Your task to perform on an android device: Go to calendar. Show me events next week Image 0: 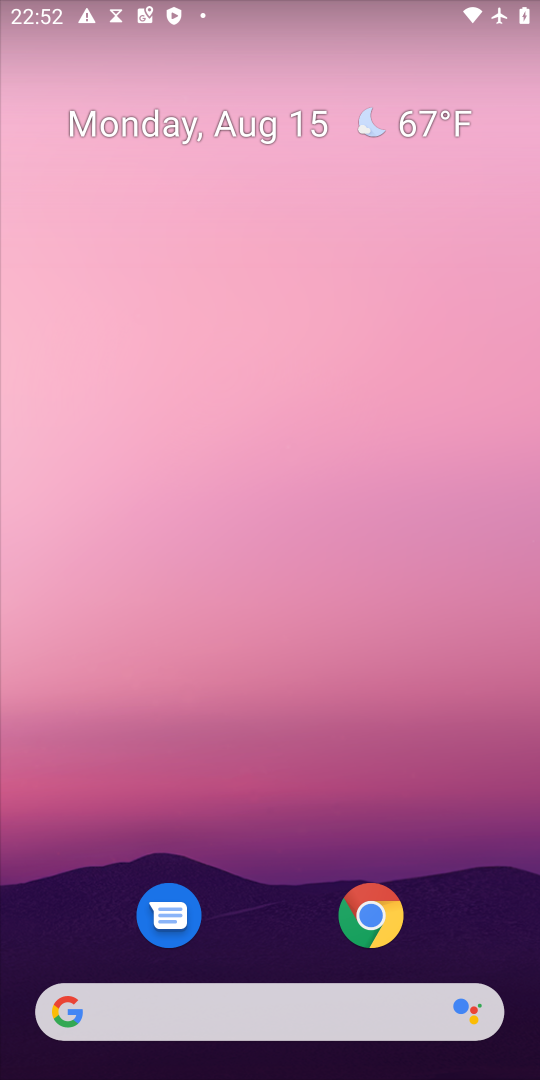
Step 0: press home button
Your task to perform on an android device: Go to calendar. Show me events next week Image 1: 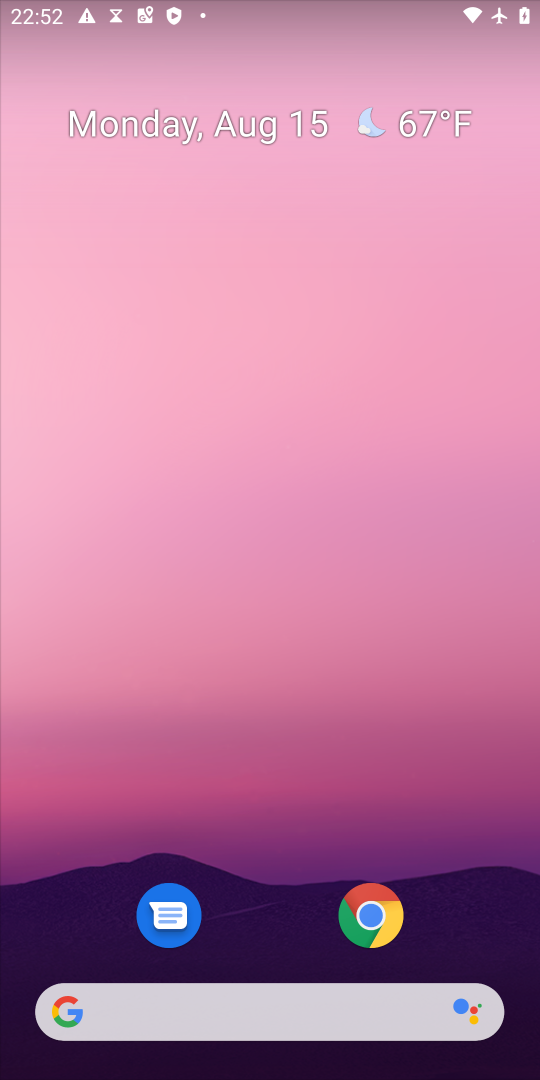
Step 1: drag from (298, 951) to (394, 348)
Your task to perform on an android device: Go to calendar. Show me events next week Image 2: 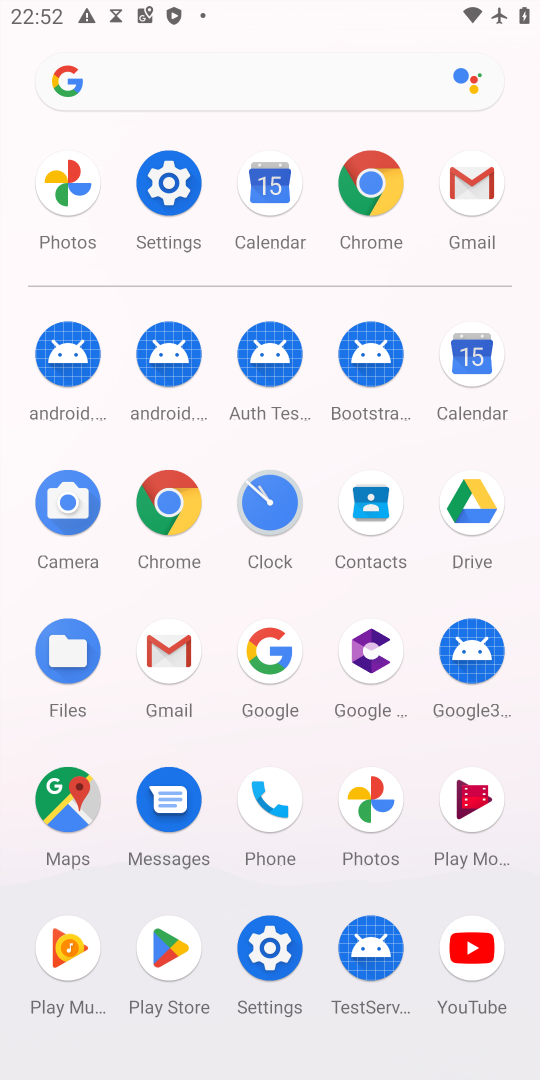
Step 2: drag from (258, 945) to (468, 361)
Your task to perform on an android device: Go to calendar. Show me events next week Image 3: 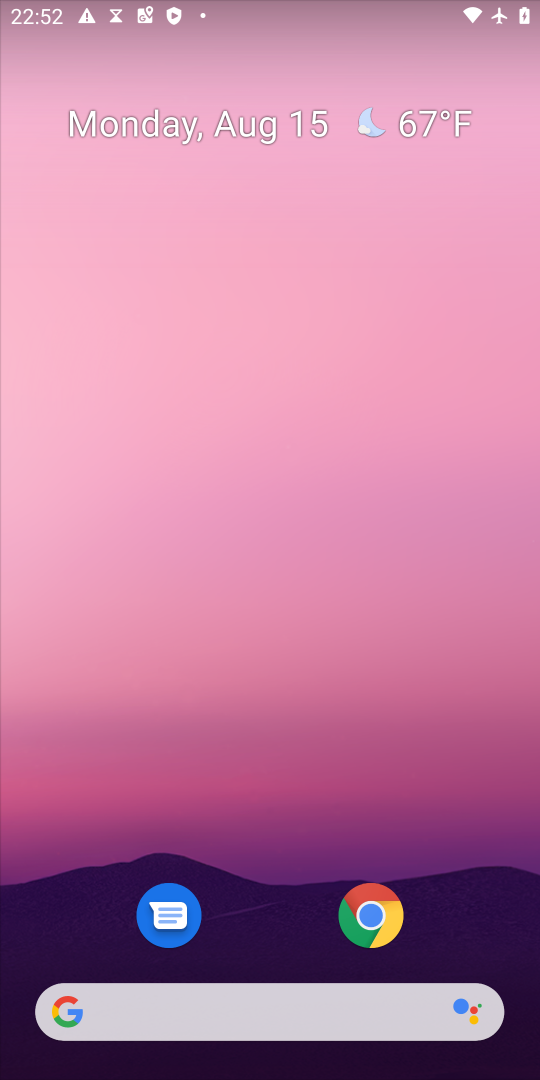
Step 3: drag from (264, 955) to (367, 156)
Your task to perform on an android device: Go to calendar. Show me events next week Image 4: 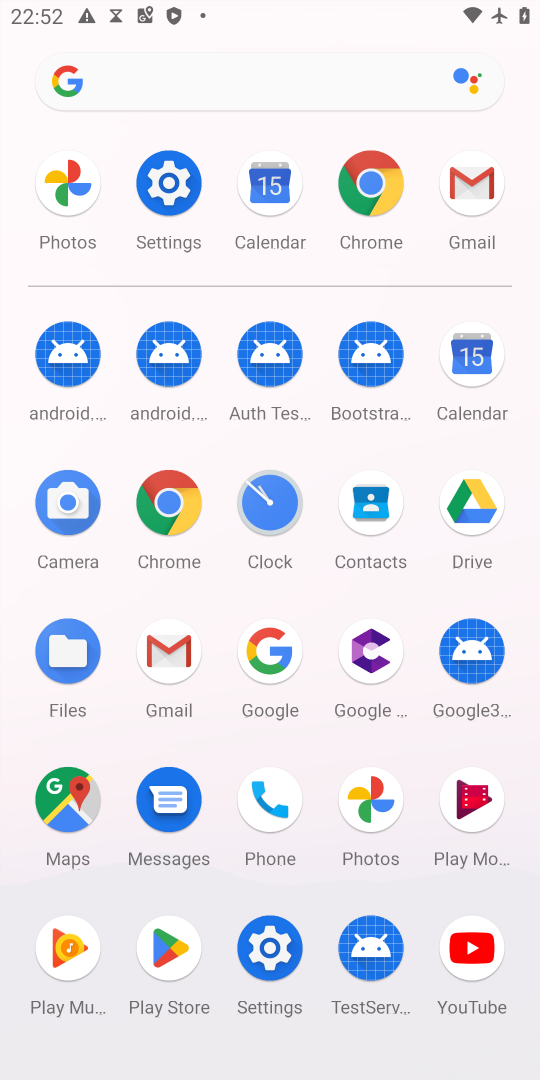
Step 4: click (480, 363)
Your task to perform on an android device: Go to calendar. Show me events next week Image 5: 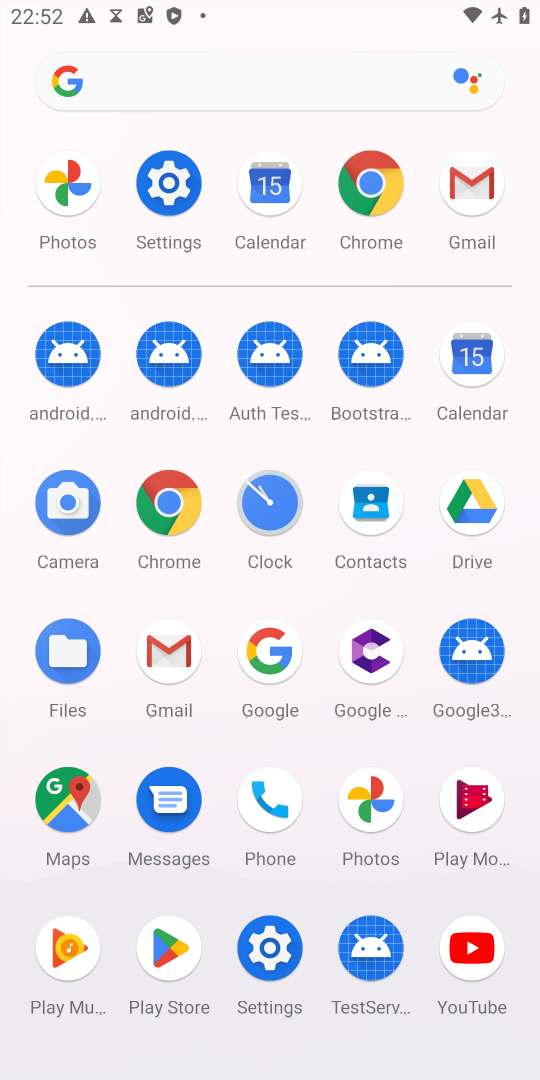
Step 5: click (476, 369)
Your task to perform on an android device: Go to calendar. Show me events next week Image 6: 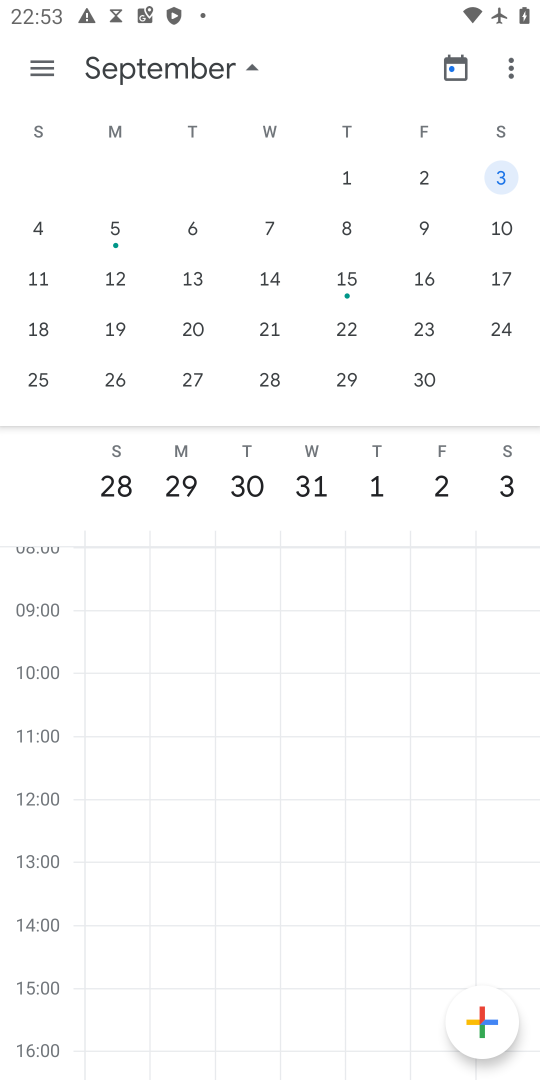
Step 6: click (47, 65)
Your task to perform on an android device: Go to calendar. Show me events next week Image 7: 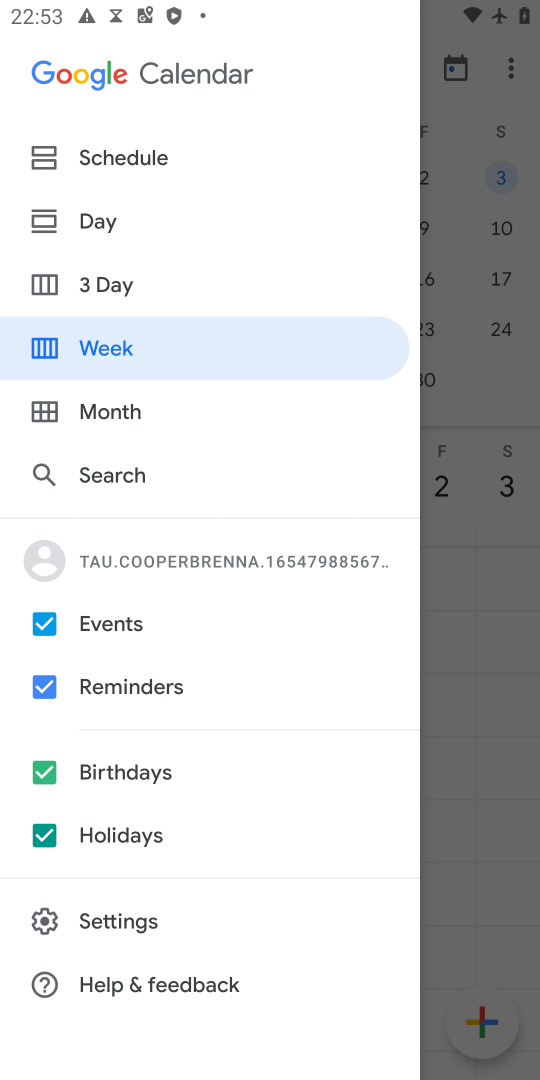
Step 7: click (129, 338)
Your task to perform on an android device: Go to calendar. Show me events next week Image 8: 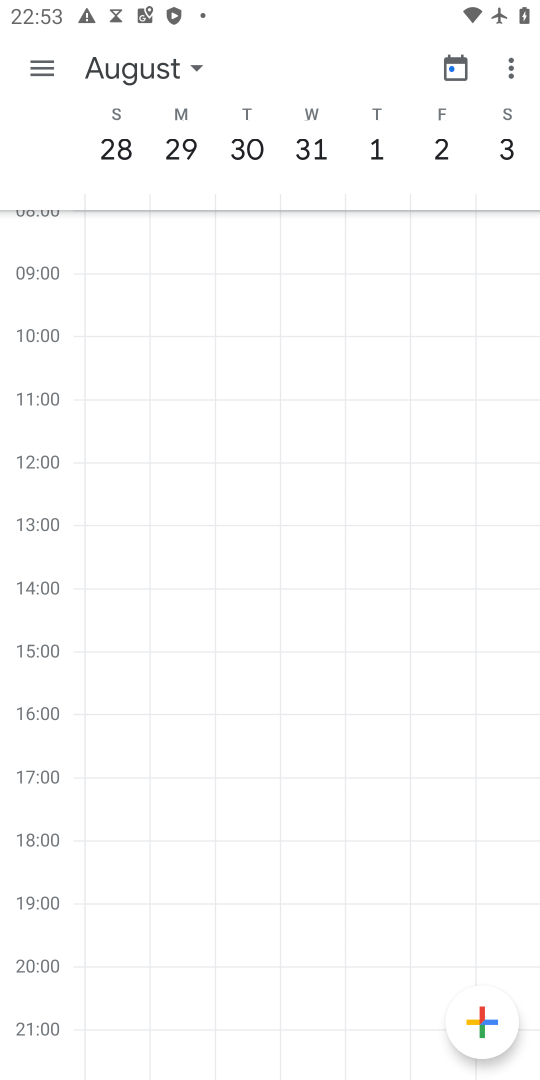
Step 8: task complete